Your task to perform on an android device: Look up the best rated Nike shoes on Nike.com Image 0: 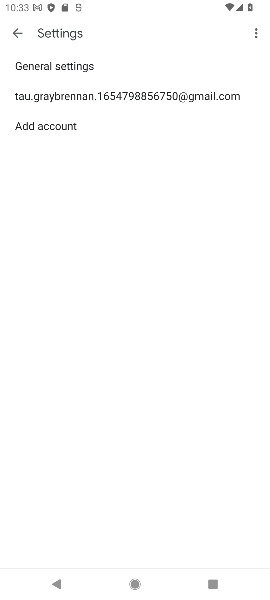
Step 0: press home button
Your task to perform on an android device: Look up the best rated Nike shoes on Nike.com Image 1: 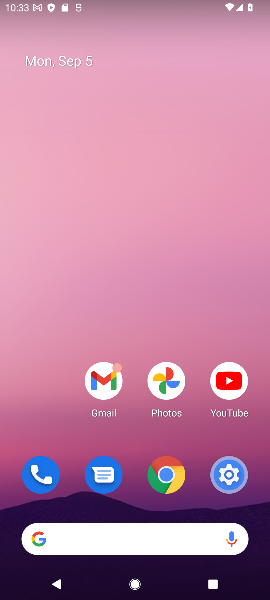
Step 1: click (94, 534)
Your task to perform on an android device: Look up the best rated Nike shoes on Nike.com Image 2: 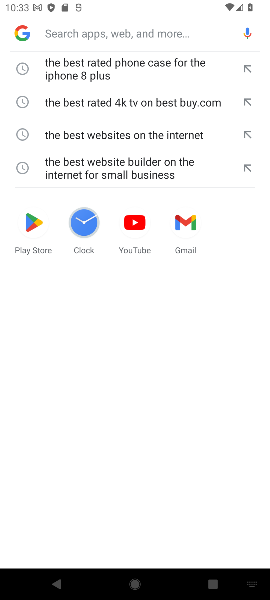
Step 2: type "the best rated Nike shoes on Nike.com"
Your task to perform on an android device: Look up the best rated Nike shoes on Nike.com Image 3: 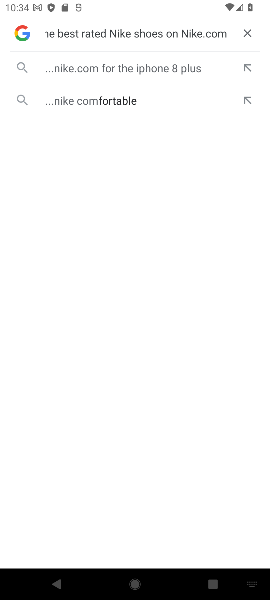
Step 3: click (173, 68)
Your task to perform on an android device: Look up the best rated Nike shoes on Nike.com Image 4: 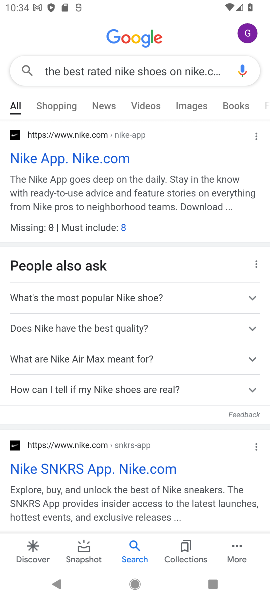
Step 4: task complete